Your task to perform on an android device: What's the weather going to be this weekend? Image 0: 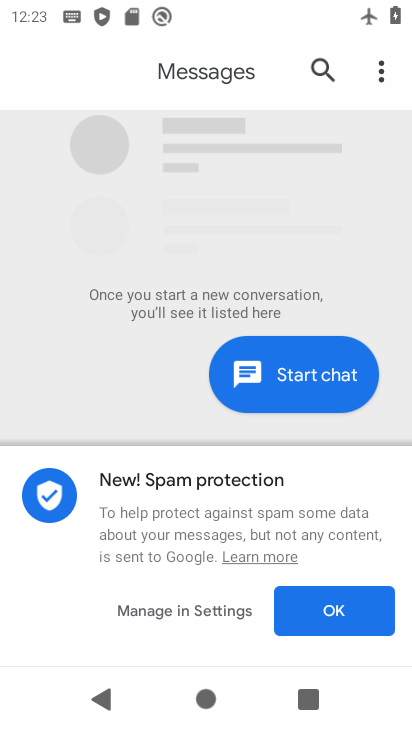
Step 0: press home button
Your task to perform on an android device: What's the weather going to be this weekend? Image 1: 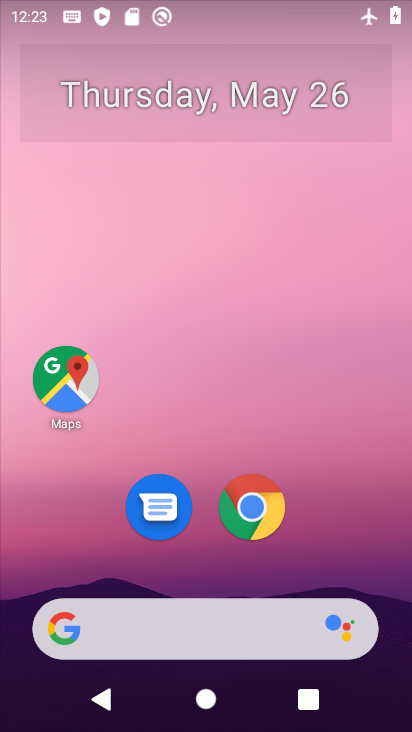
Step 1: drag from (197, 561) to (261, 164)
Your task to perform on an android device: What's the weather going to be this weekend? Image 2: 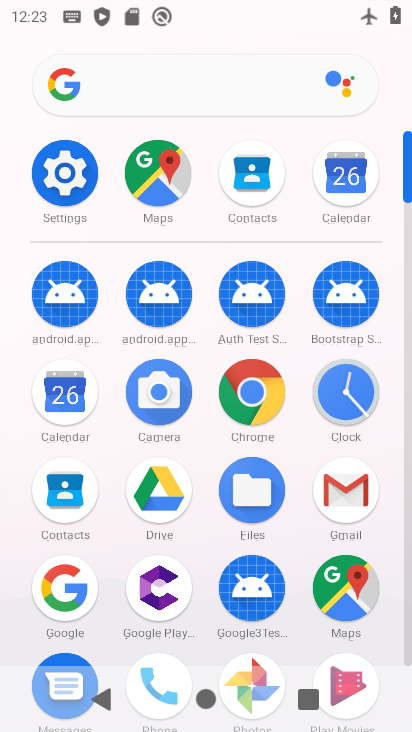
Step 2: click (77, 572)
Your task to perform on an android device: What's the weather going to be this weekend? Image 3: 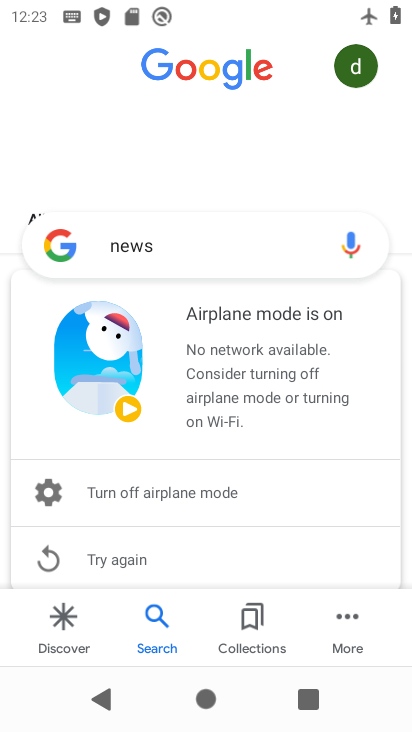
Step 3: task complete